Your task to perform on an android device: open chrome and create a bookmark for the current page Image 0: 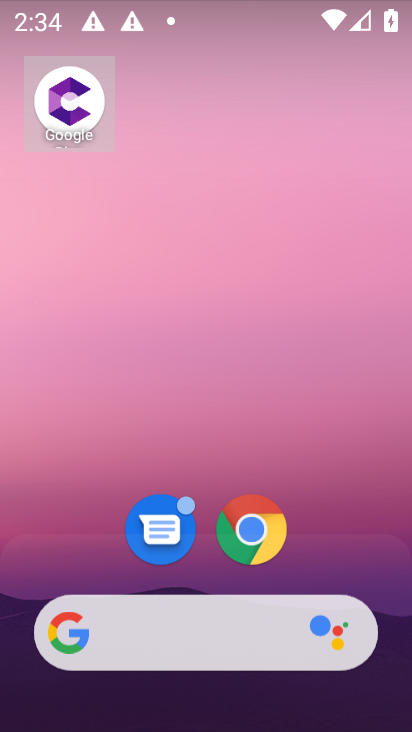
Step 0: click (254, 534)
Your task to perform on an android device: open chrome and create a bookmark for the current page Image 1: 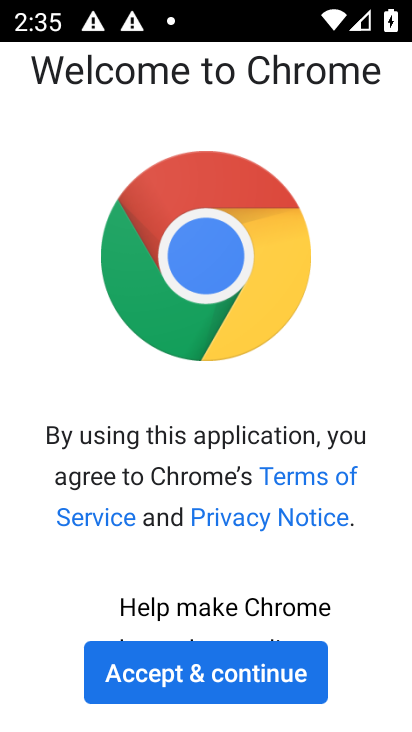
Step 1: click (218, 664)
Your task to perform on an android device: open chrome and create a bookmark for the current page Image 2: 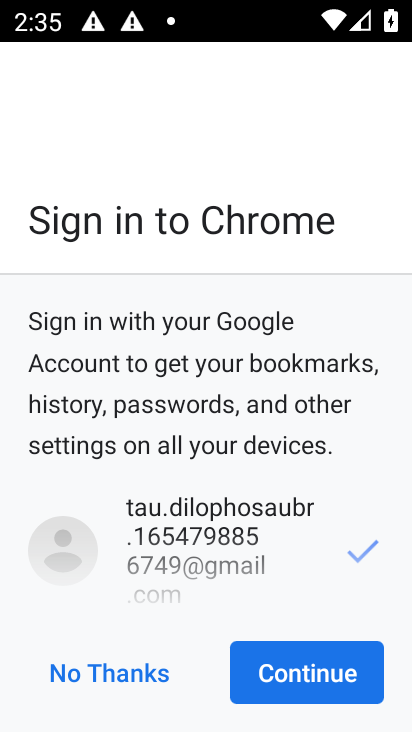
Step 2: click (286, 683)
Your task to perform on an android device: open chrome and create a bookmark for the current page Image 3: 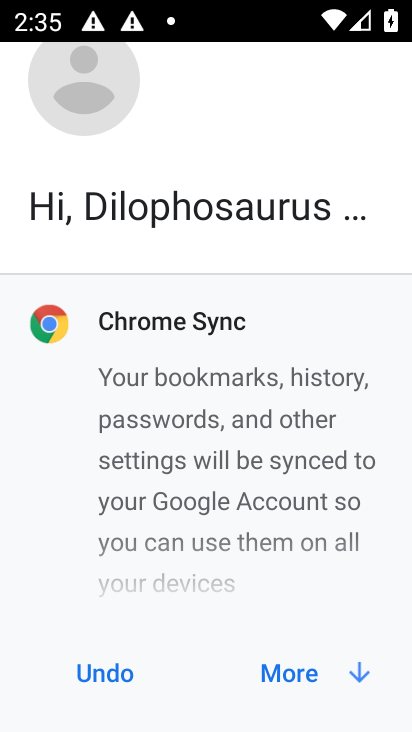
Step 3: click (307, 683)
Your task to perform on an android device: open chrome and create a bookmark for the current page Image 4: 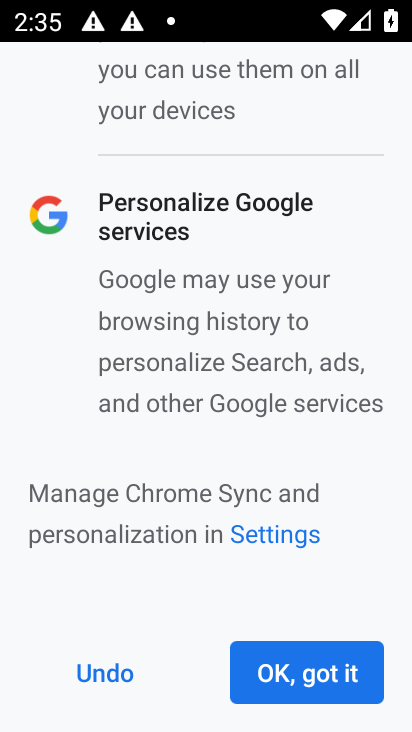
Step 4: click (354, 673)
Your task to perform on an android device: open chrome and create a bookmark for the current page Image 5: 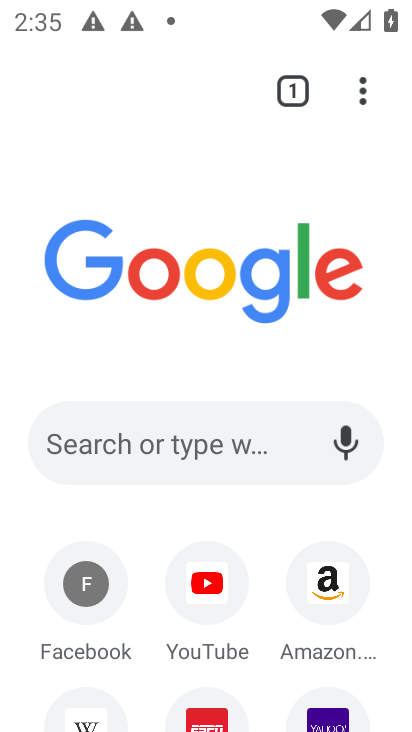
Step 5: drag from (361, 107) to (116, 114)
Your task to perform on an android device: open chrome and create a bookmark for the current page Image 6: 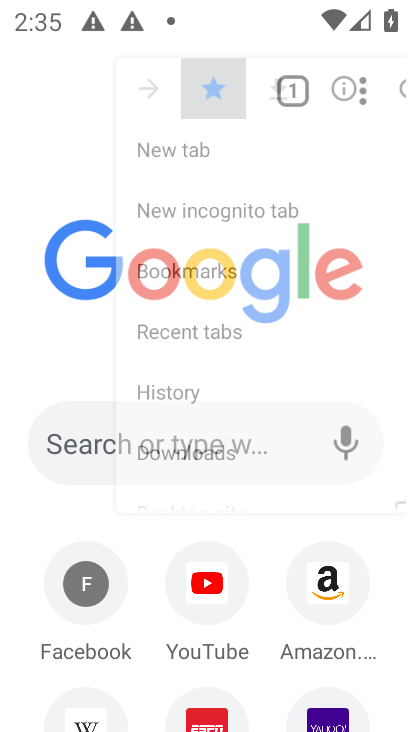
Step 6: click (149, 89)
Your task to perform on an android device: open chrome and create a bookmark for the current page Image 7: 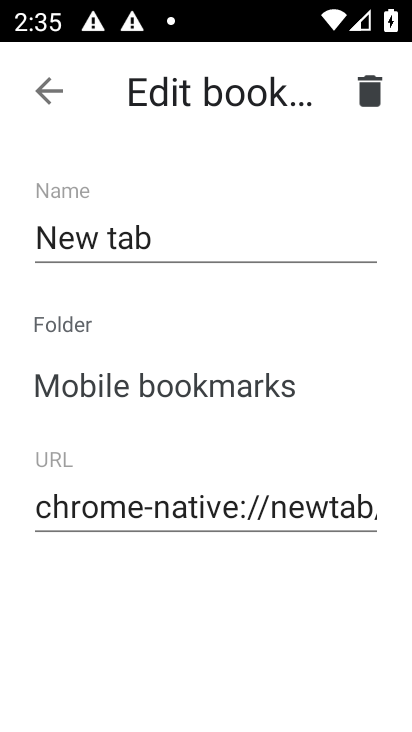
Step 7: task complete